Your task to perform on an android device: change the clock display to analog Image 0: 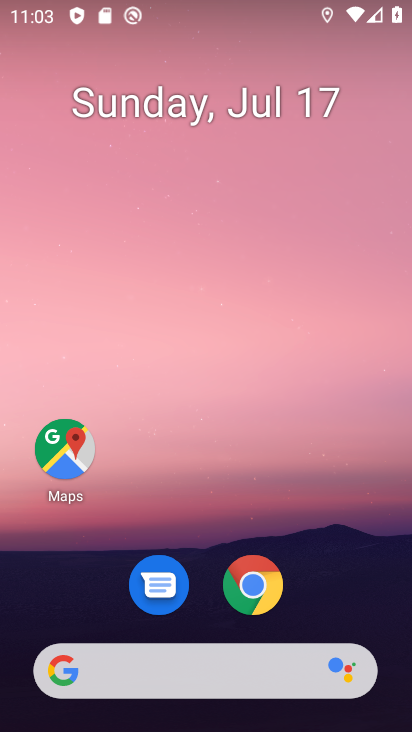
Step 0: drag from (317, 601) to (325, 44)
Your task to perform on an android device: change the clock display to analog Image 1: 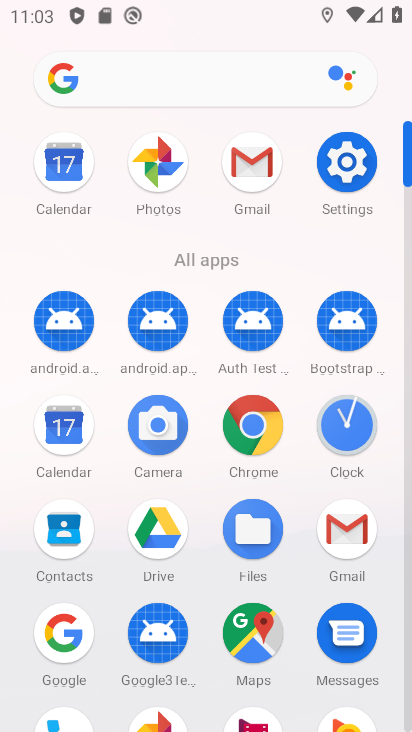
Step 1: click (353, 430)
Your task to perform on an android device: change the clock display to analog Image 2: 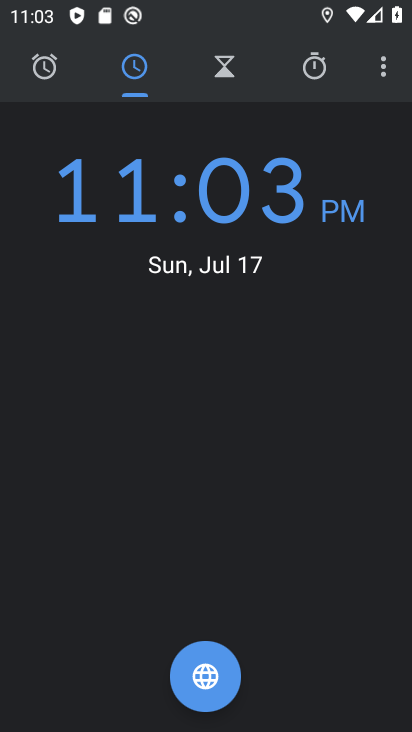
Step 2: click (390, 68)
Your task to perform on an android device: change the clock display to analog Image 3: 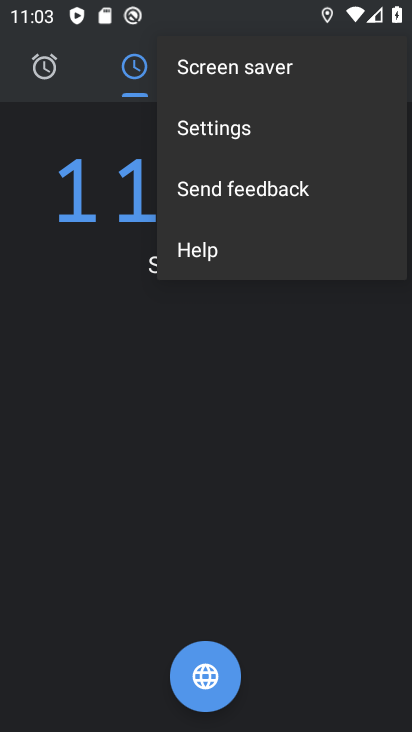
Step 3: click (293, 139)
Your task to perform on an android device: change the clock display to analog Image 4: 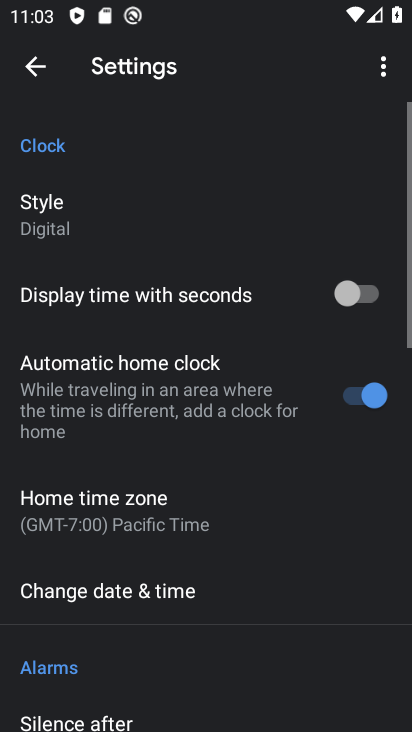
Step 4: click (62, 227)
Your task to perform on an android device: change the clock display to analog Image 5: 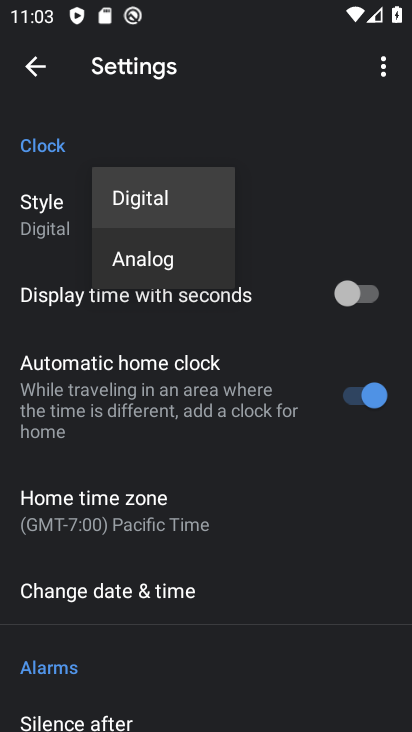
Step 5: click (119, 261)
Your task to perform on an android device: change the clock display to analog Image 6: 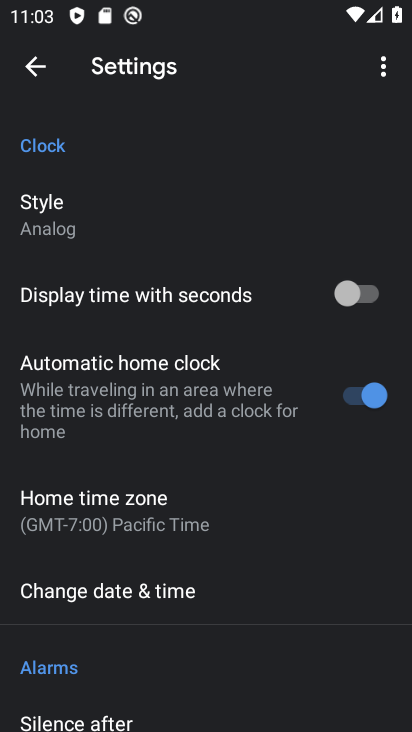
Step 6: click (44, 65)
Your task to perform on an android device: change the clock display to analog Image 7: 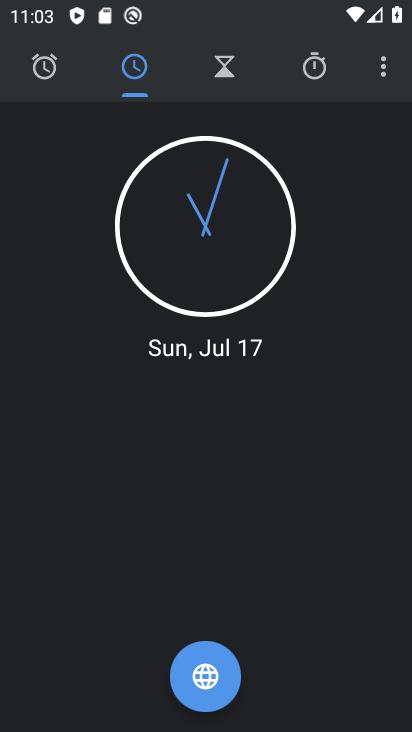
Step 7: task complete